Your task to perform on an android device: turn off airplane mode Image 0: 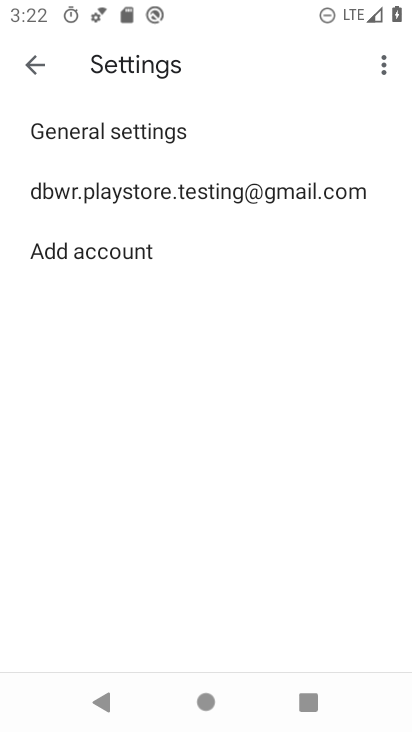
Step 0: press home button
Your task to perform on an android device: turn off airplane mode Image 1: 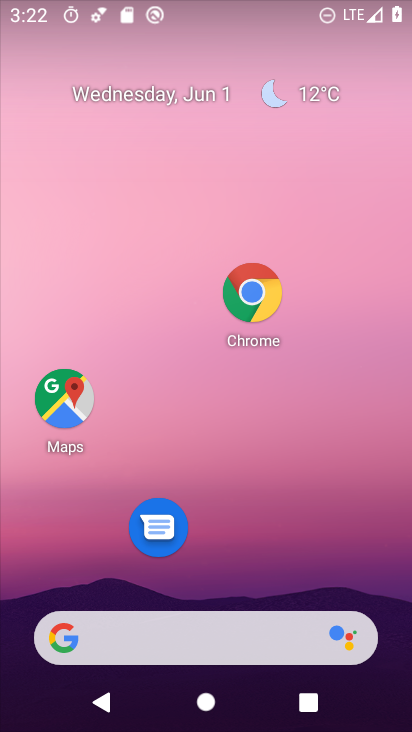
Step 1: drag from (302, 573) to (302, 479)
Your task to perform on an android device: turn off airplane mode Image 2: 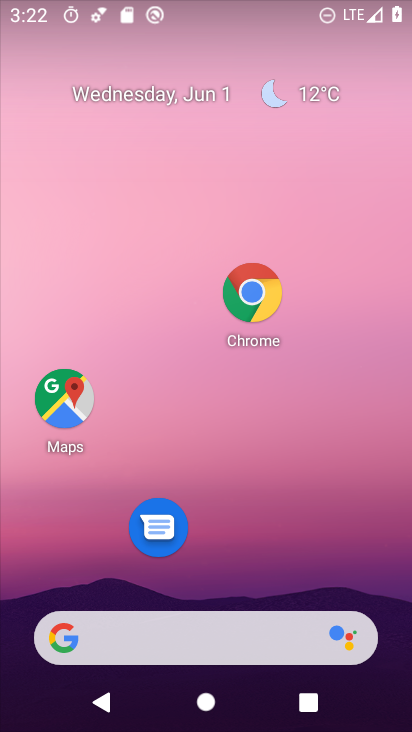
Step 2: drag from (288, 536) to (288, 486)
Your task to perform on an android device: turn off airplane mode Image 3: 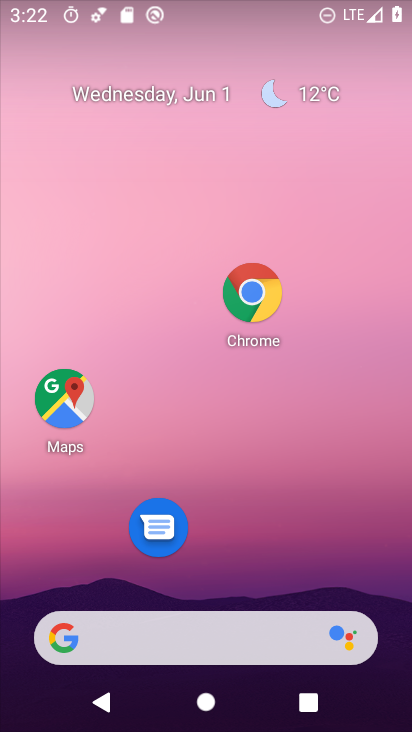
Step 3: drag from (255, 600) to (271, 300)
Your task to perform on an android device: turn off airplane mode Image 4: 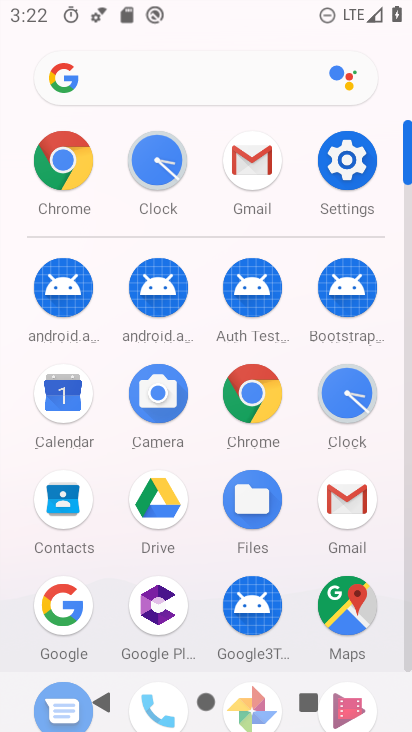
Step 4: click (355, 187)
Your task to perform on an android device: turn off airplane mode Image 5: 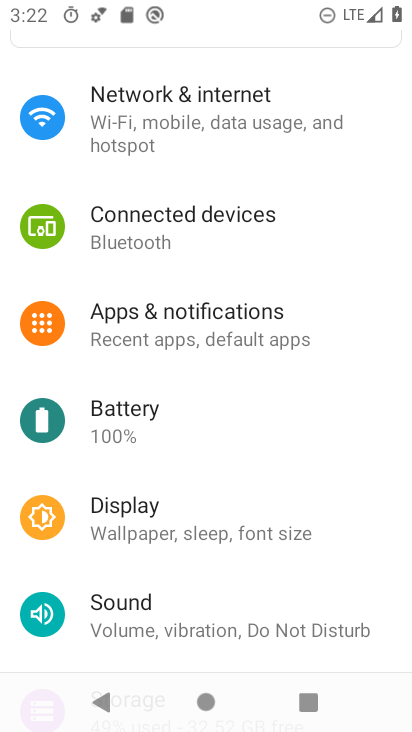
Step 5: drag from (266, 214) to (220, 464)
Your task to perform on an android device: turn off airplane mode Image 6: 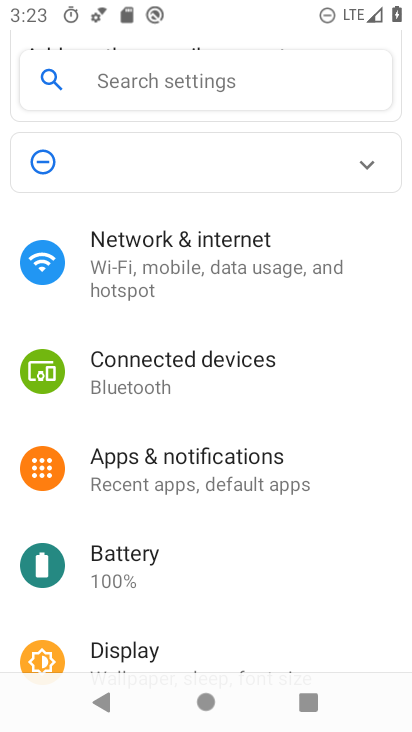
Step 6: click (259, 259)
Your task to perform on an android device: turn off airplane mode Image 7: 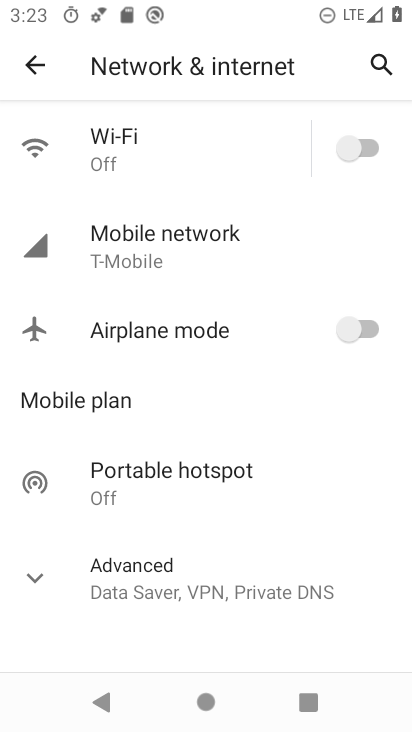
Step 7: task complete